Your task to perform on an android device: open app "Move to iOS" (install if not already installed) Image 0: 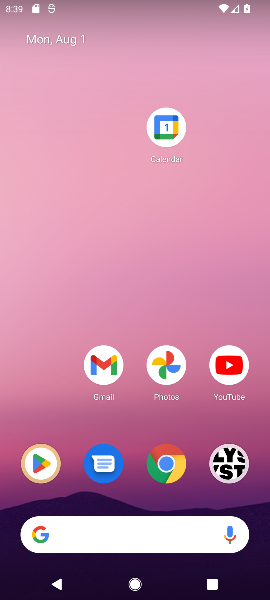
Step 0: task complete